Your task to perform on an android device: Toggle the flashlight Image 0: 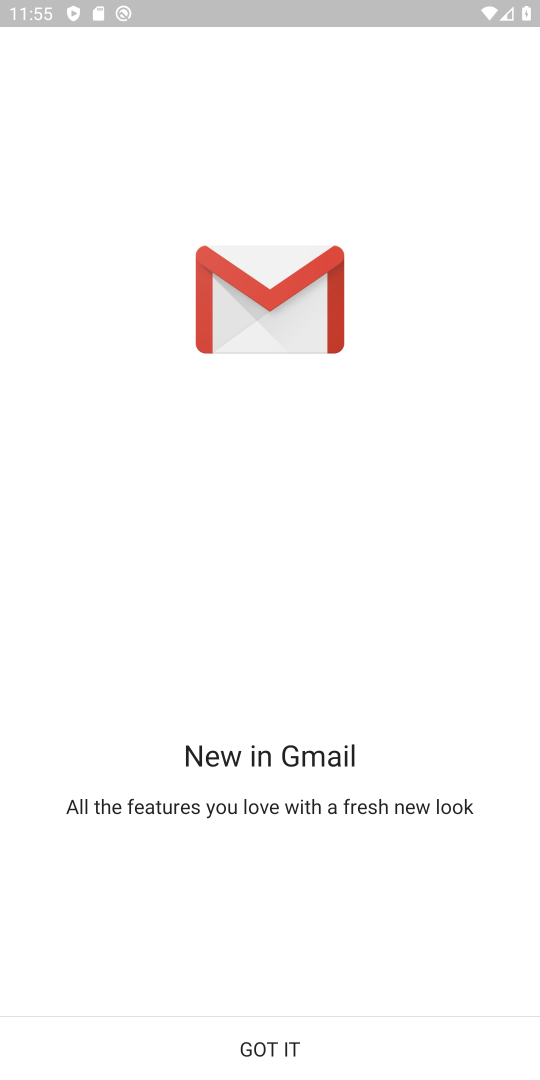
Step 0: press home button
Your task to perform on an android device: Toggle the flashlight Image 1: 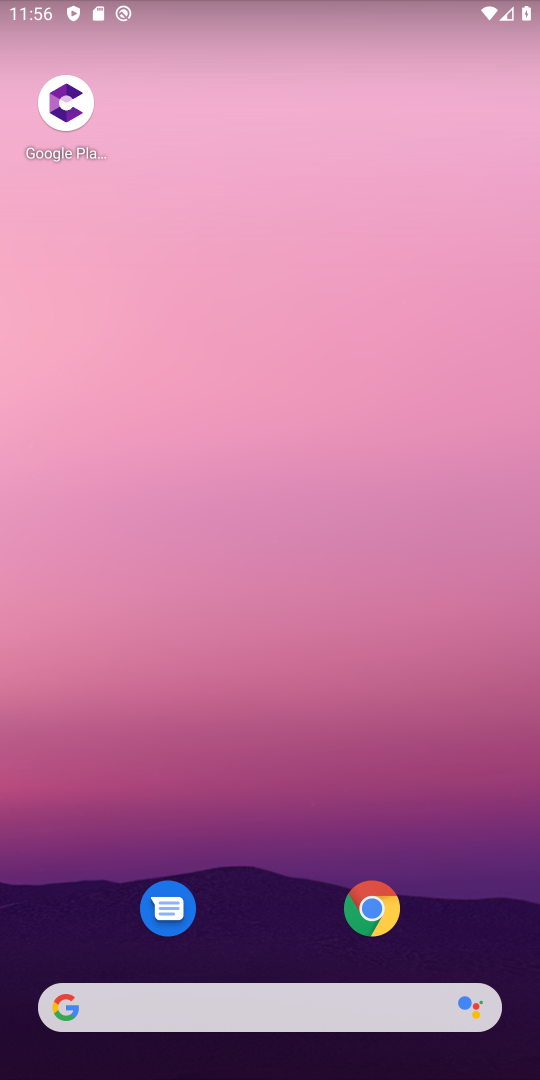
Step 1: drag from (293, 738) to (293, 503)
Your task to perform on an android device: Toggle the flashlight Image 2: 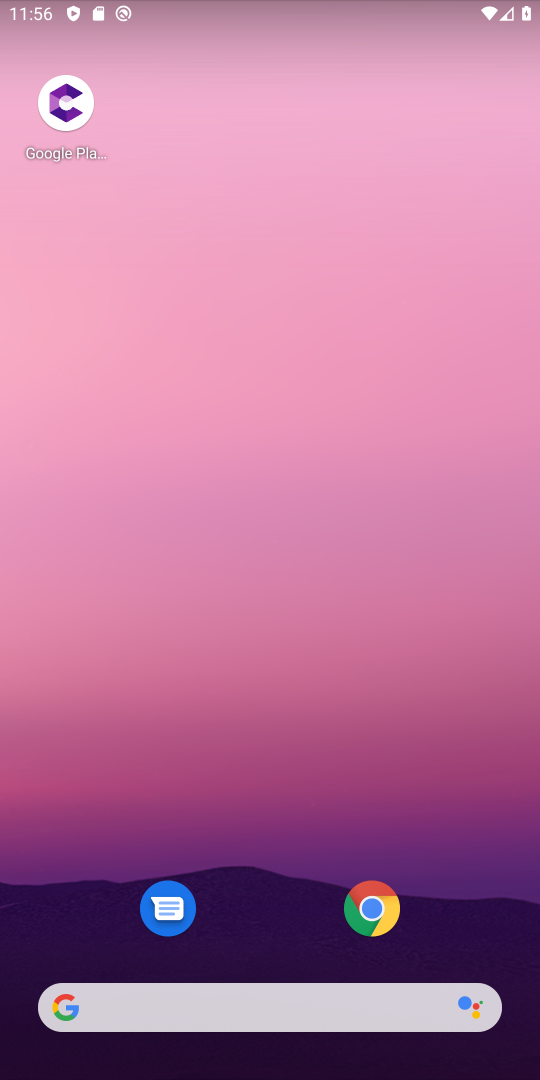
Step 2: drag from (279, 866) to (262, 198)
Your task to perform on an android device: Toggle the flashlight Image 3: 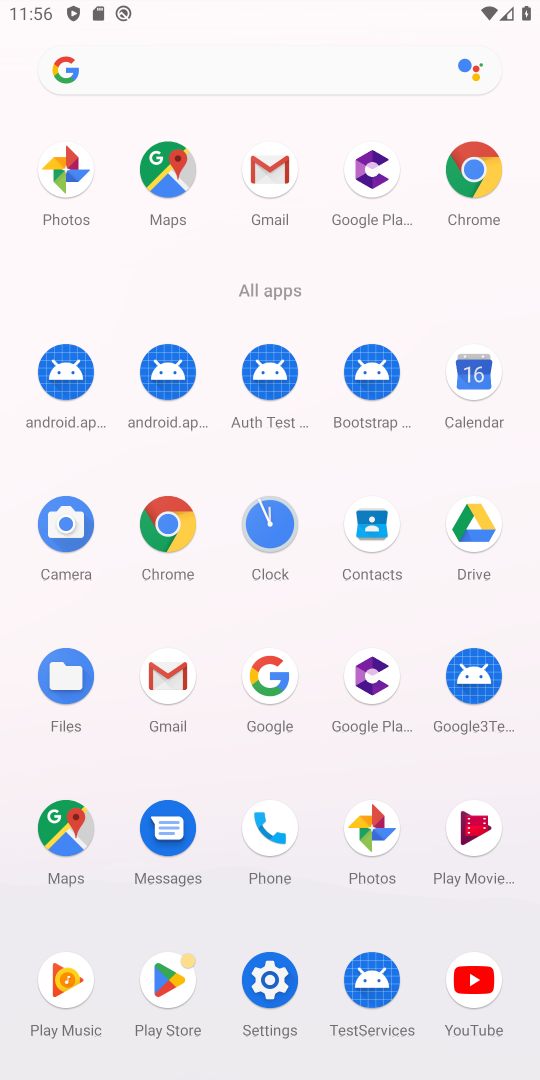
Step 3: click (259, 971)
Your task to perform on an android device: Toggle the flashlight Image 4: 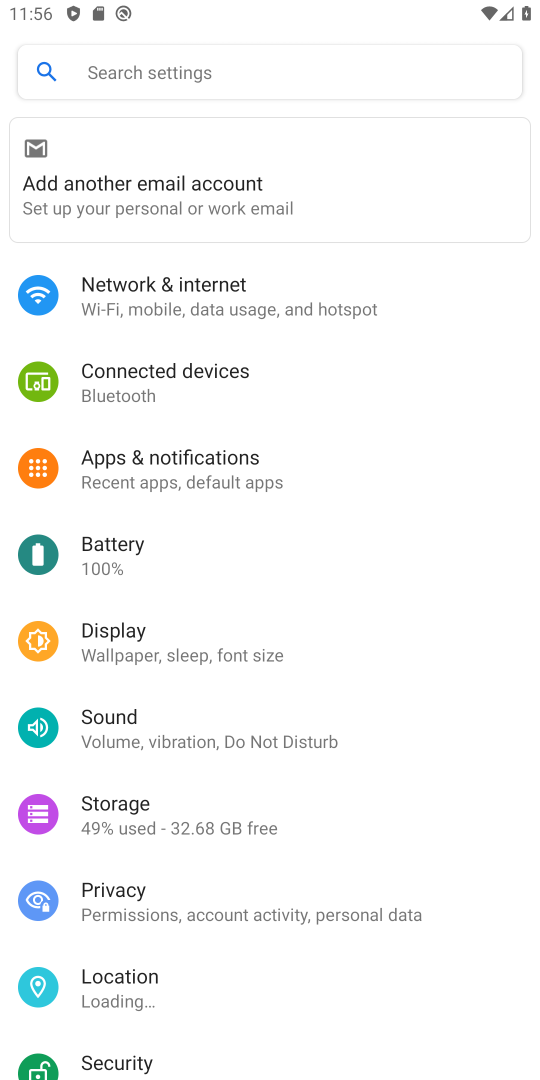
Step 4: task complete